Your task to perform on an android device: add a label to a message in the gmail app Image 0: 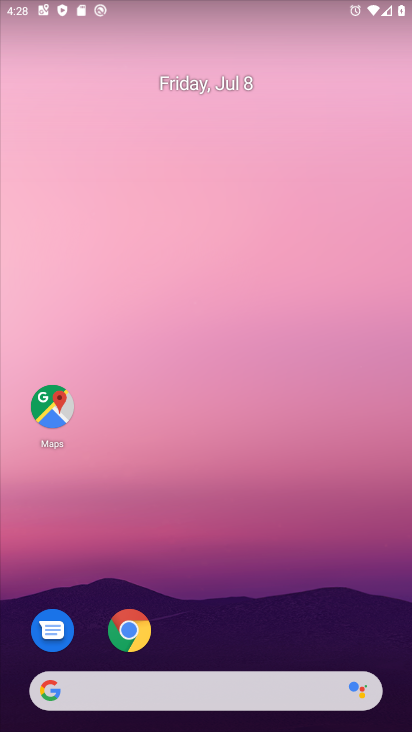
Step 0: drag from (208, 676) to (240, 187)
Your task to perform on an android device: add a label to a message in the gmail app Image 1: 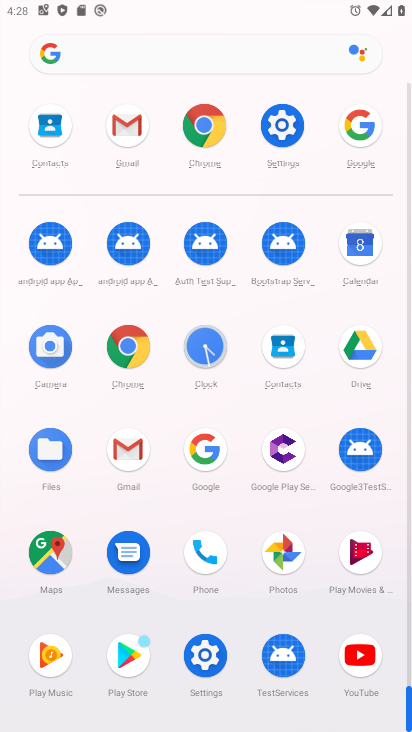
Step 1: click (122, 122)
Your task to perform on an android device: add a label to a message in the gmail app Image 2: 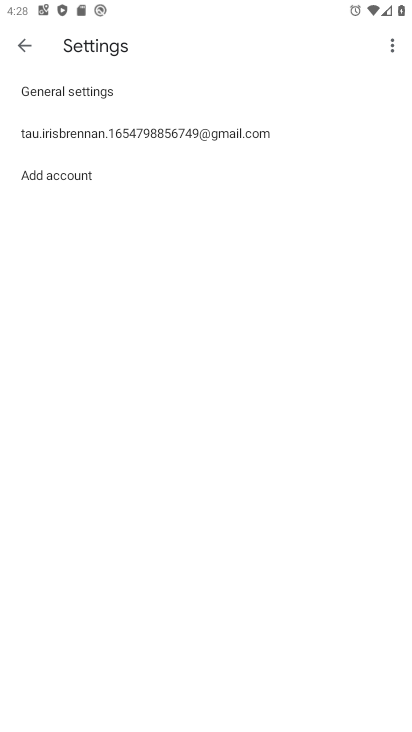
Step 2: press back button
Your task to perform on an android device: add a label to a message in the gmail app Image 3: 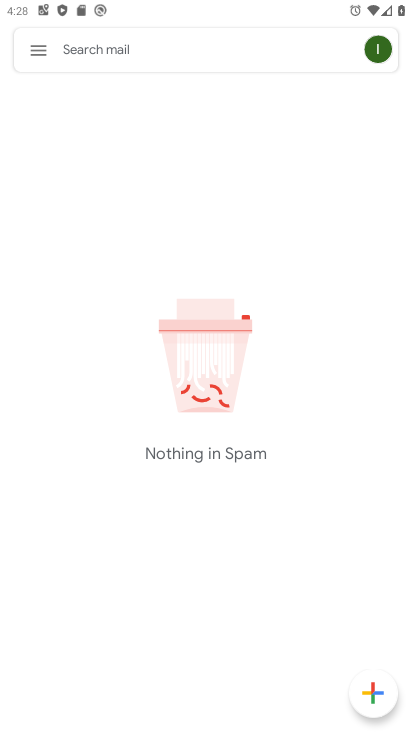
Step 3: click (35, 51)
Your task to perform on an android device: add a label to a message in the gmail app Image 4: 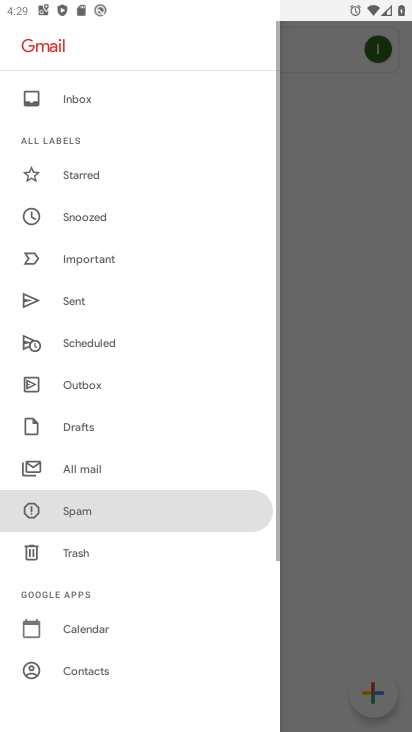
Step 4: click (74, 93)
Your task to perform on an android device: add a label to a message in the gmail app Image 5: 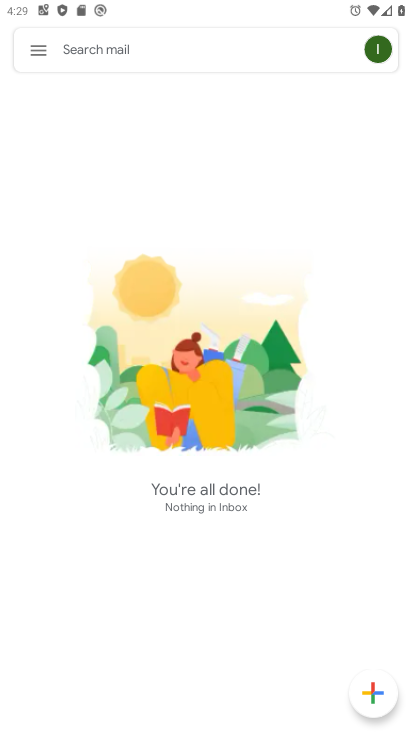
Step 5: click (36, 53)
Your task to perform on an android device: add a label to a message in the gmail app Image 6: 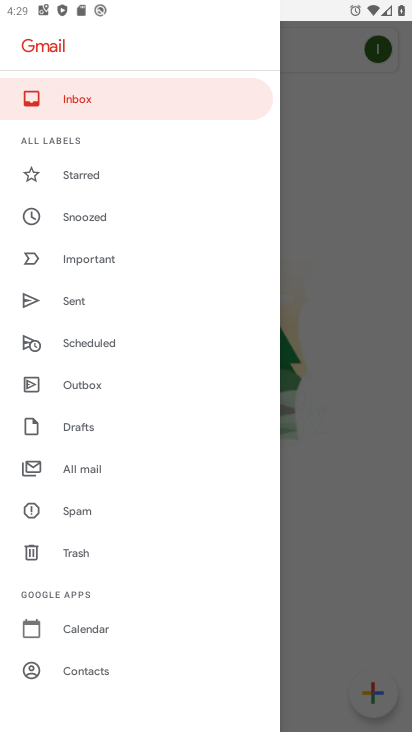
Step 6: click (95, 178)
Your task to perform on an android device: add a label to a message in the gmail app Image 7: 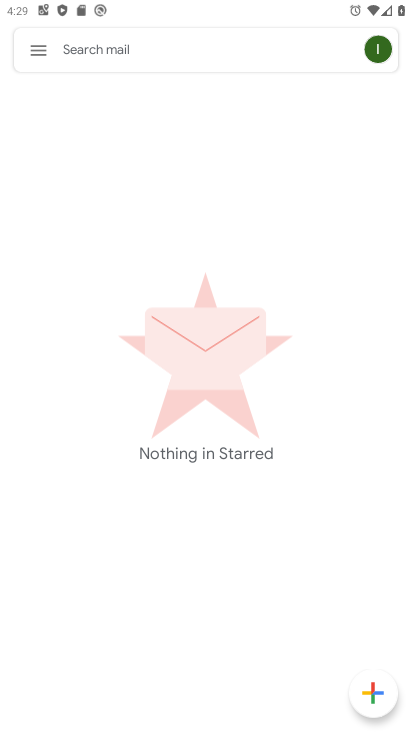
Step 7: click (43, 52)
Your task to perform on an android device: add a label to a message in the gmail app Image 8: 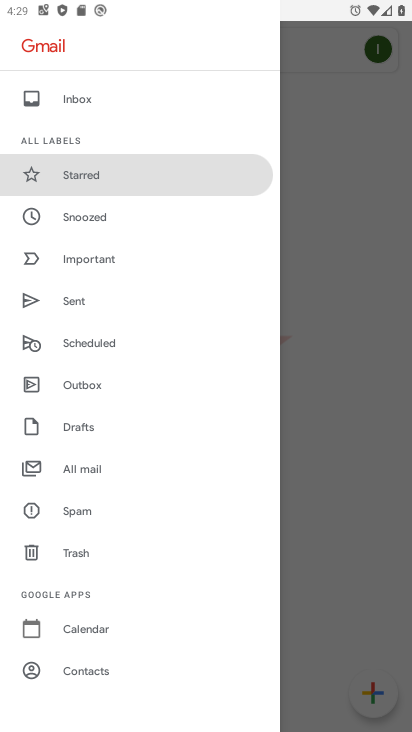
Step 8: click (88, 223)
Your task to perform on an android device: add a label to a message in the gmail app Image 9: 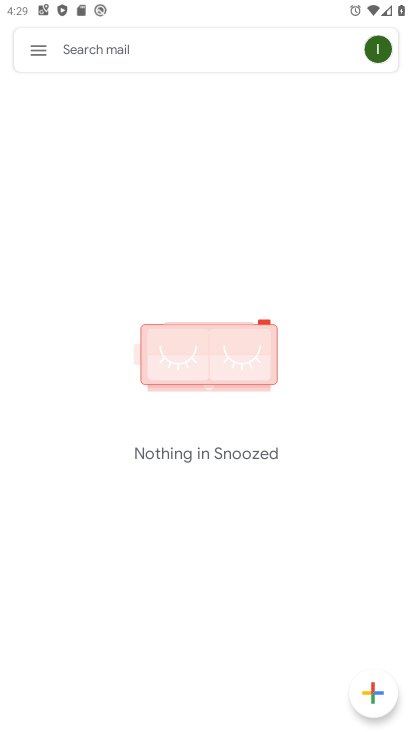
Step 9: click (39, 53)
Your task to perform on an android device: add a label to a message in the gmail app Image 10: 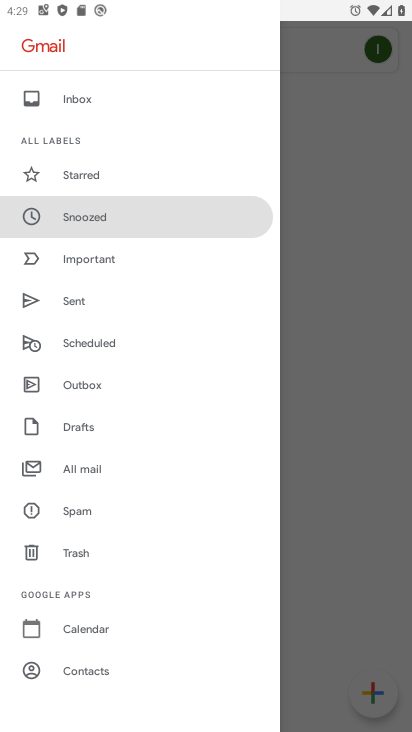
Step 10: click (87, 265)
Your task to perform on an android device: add a label to a message in the gmail app Image 11: 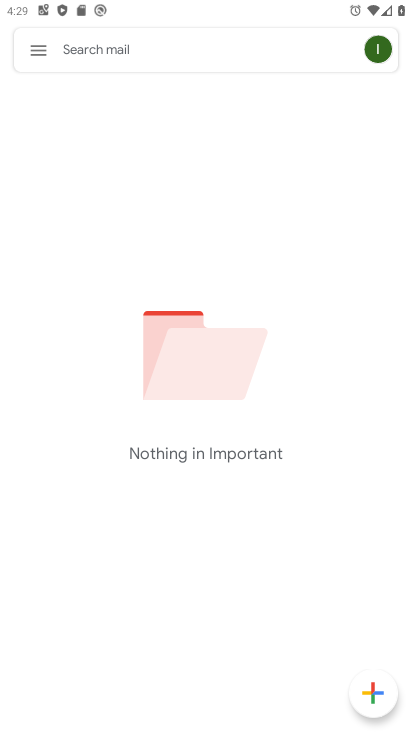
Step 11: click (36, 49)
Your task to perform on an android device: add a label to a message in the gmail app Image 12: 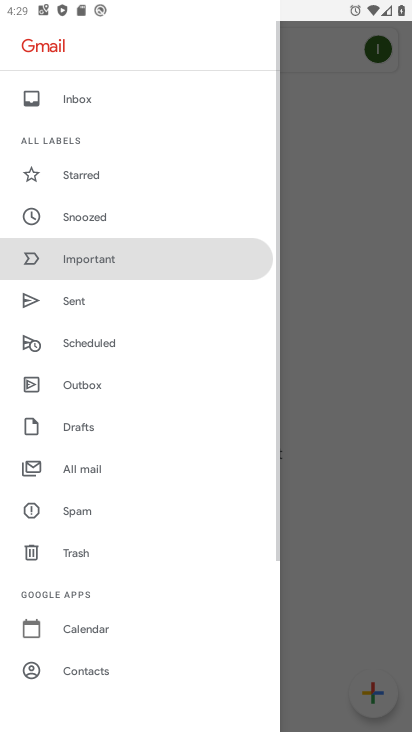
Step 12: click (91, 310)
Your task to perform on an android device: add a label to a message in the gmail app Image 13: 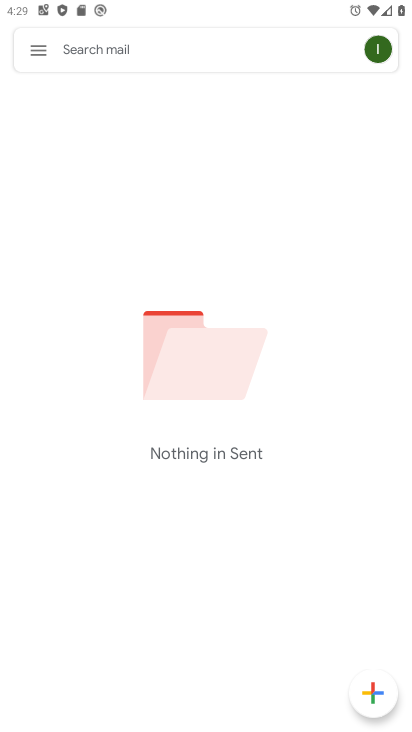
Step 13: click (39, 49)
Your task to perform on an android device: add a label to a message in the gmail app Image 14: 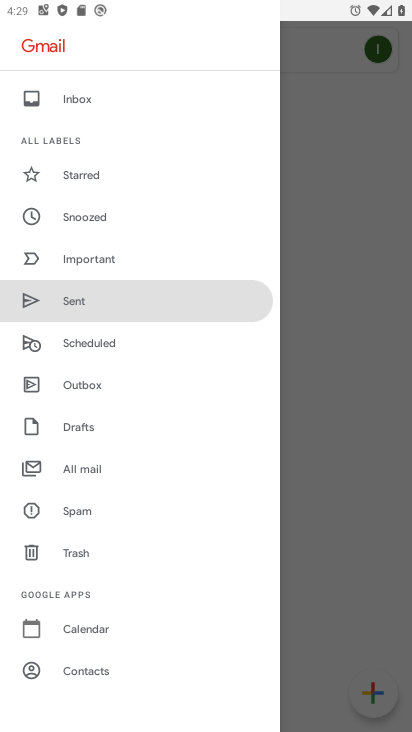
Step 14: click (93, 344)
Your task to perform on an android device: add a label to a message in the gmail app Image 15: 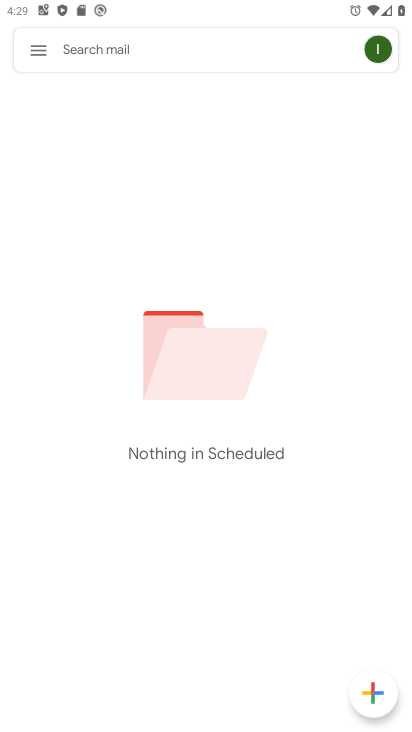
Step 15: click (37, 47)
Your task to perform on an android device: add a label to a message in the gmail app Image 16: 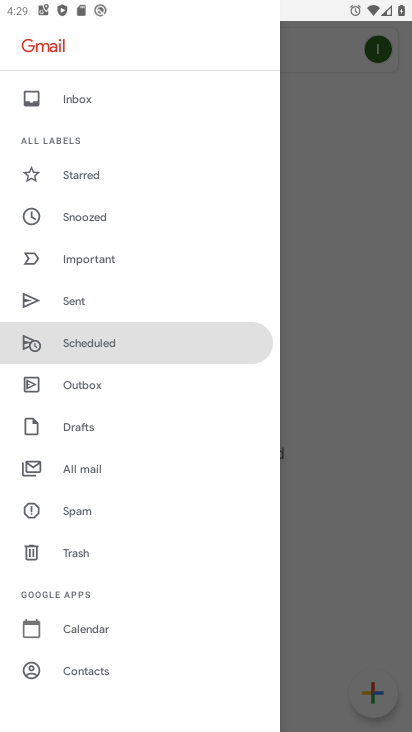
Step 16: click (100, 401)
Your task to perform on an android device: add a label to a message in the gmail app Image 17: 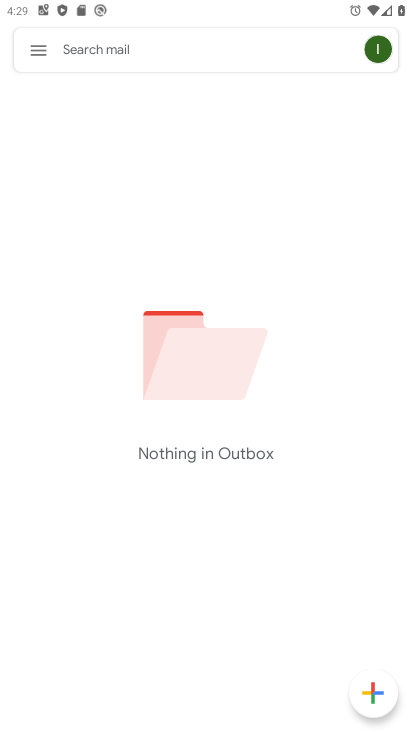
Step 17: click (39, 53)
Your task to perform on an android device: add a label to a message in the gmail app Image 18: 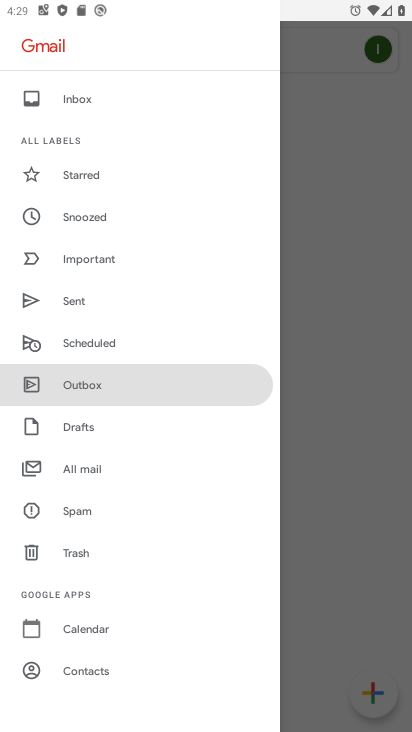
Step 18: click (85, 432)
Your task to perform on an android device: add a label to a message in the gmail app Image 19: 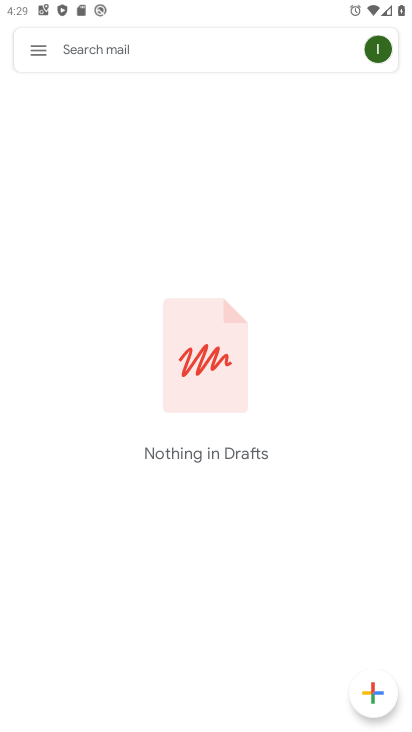
Step 19: click (34, 44)
Your task to perform on an android device: add a label to a message in the gmail app Image 20: 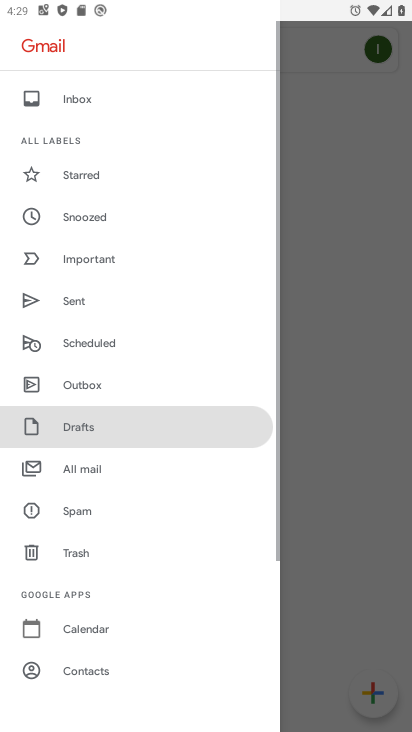
Step 20: click (111, 472)
Your task to perform on an android device: add a label to a message in the gmail app Image 21: 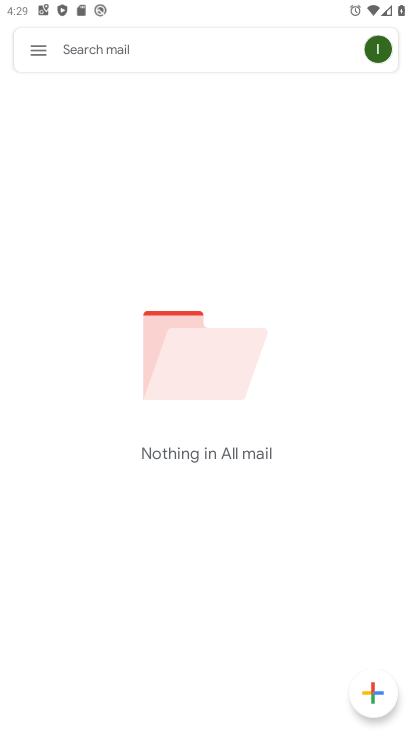
Step 21: click (38, 48)
Your task to perform on an android device: add a label to a message in the gmail app Image 22: 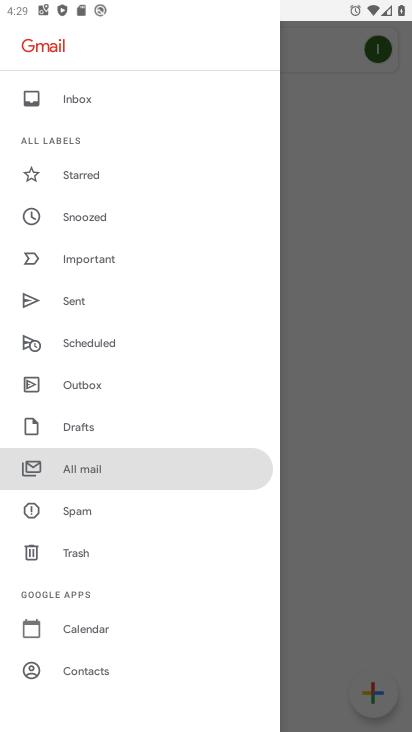
Step 22: click (65, 525)
Your task to perform on an android device: add a label to a message in the gmail app Image 23: 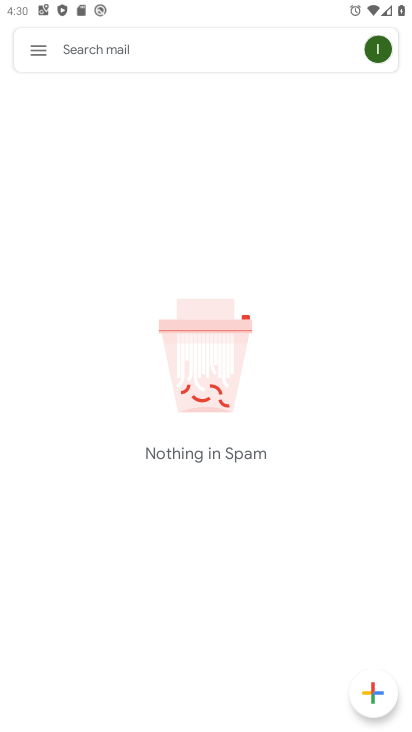
Step 23: task complete